Your task to perform on an android device: change the clock display to analog Image 0: 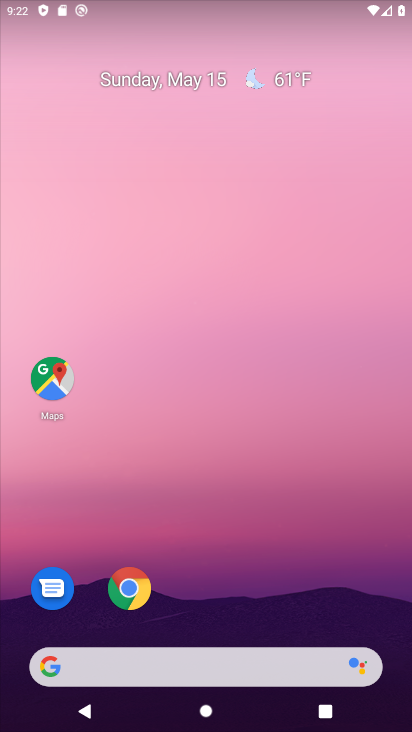
Step 0: drag from (214, 616) to (262, 50)
Your task to perform on an android device: change the clock display to analog Image 1: 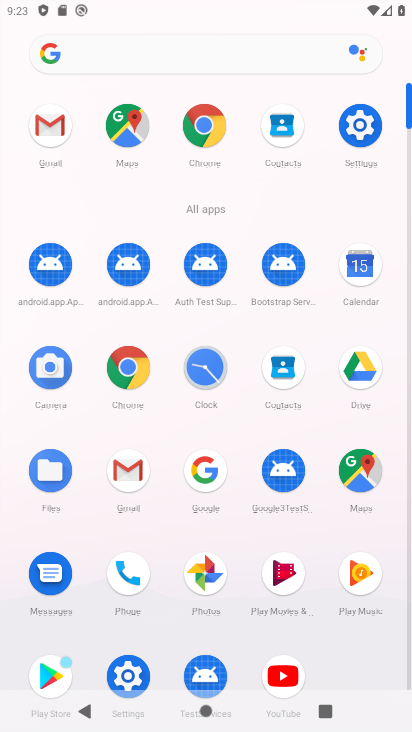
Step 1: click (125, 660)
Your task to perform on an android device: change the clock display to analog Image 2: 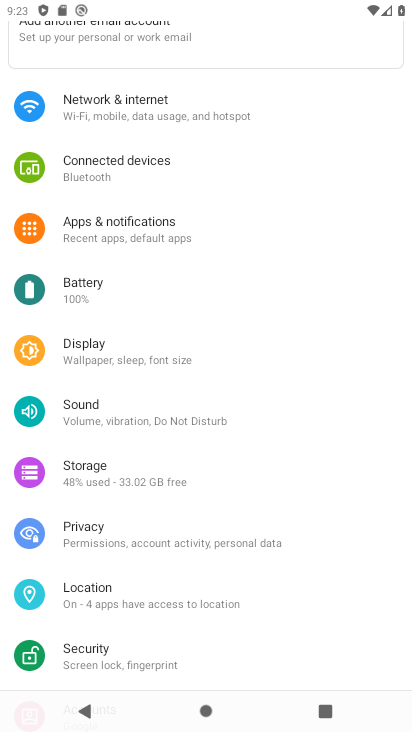
Step 2: drag from (137, 598) to (176, 288)
Your task to perform on an android device: change the clock display to analog Image 3: 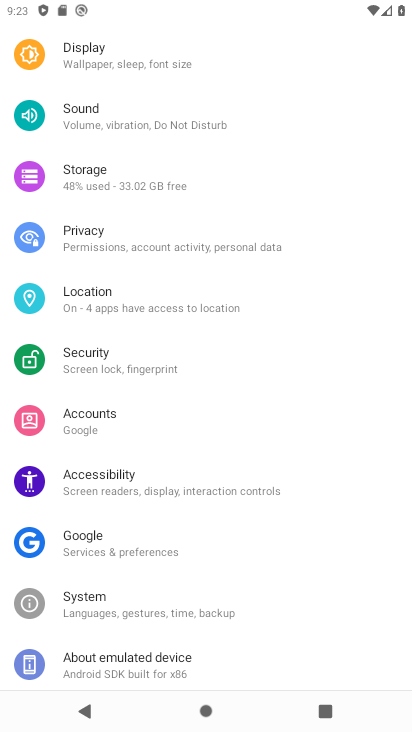
Step 3: click (131, 71)
Your task to perform on an android device: change the clock display to analog Image 4: 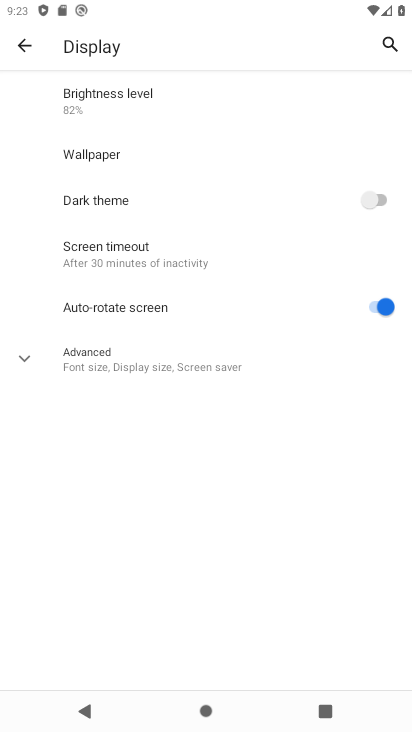
Step 4: click (132, 367)
Your task to perform on an android device: change the clock display to analog Image 5: 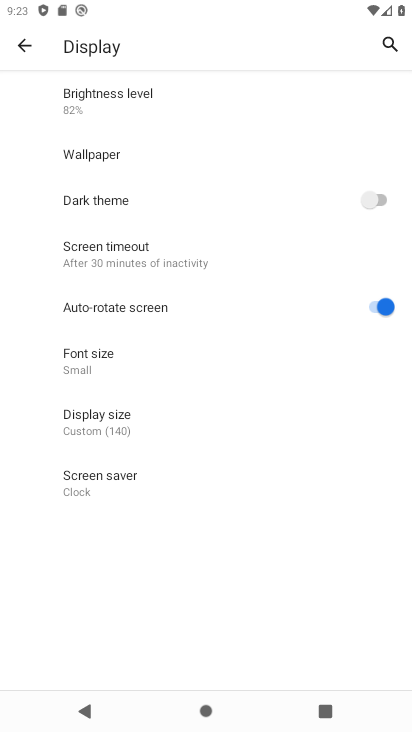
Step 5: click (169, 477)
Your task to perform on an android device: change the clock display to analog Image 6: 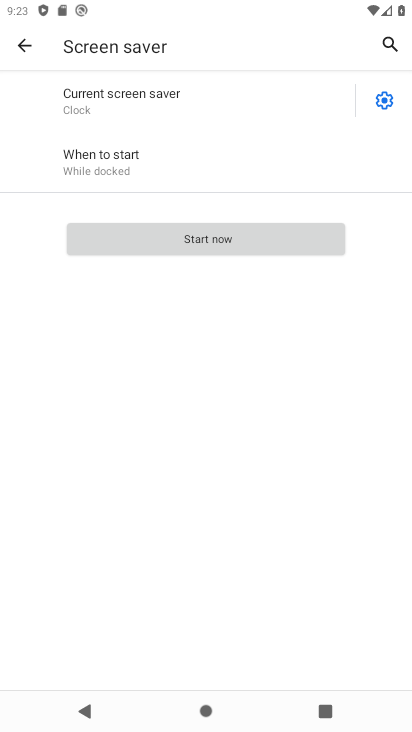
Step 6: click (379, 94)
Your task to perform on an android device: change the clock display to analog Image 7: 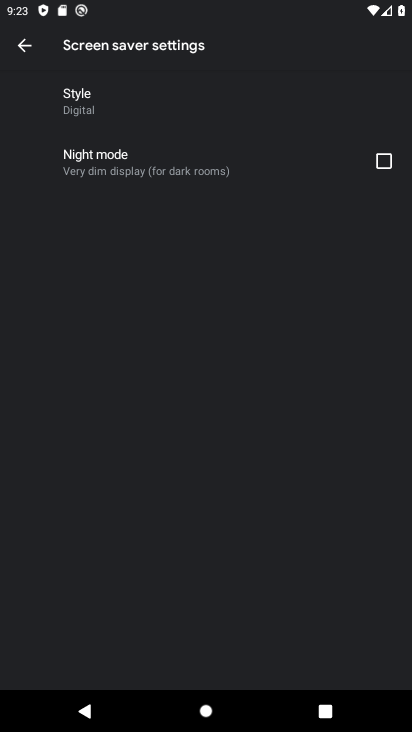
Step 7: click (134, 104)
Your task to perform on an android device: change the clock display to analog Image 8: 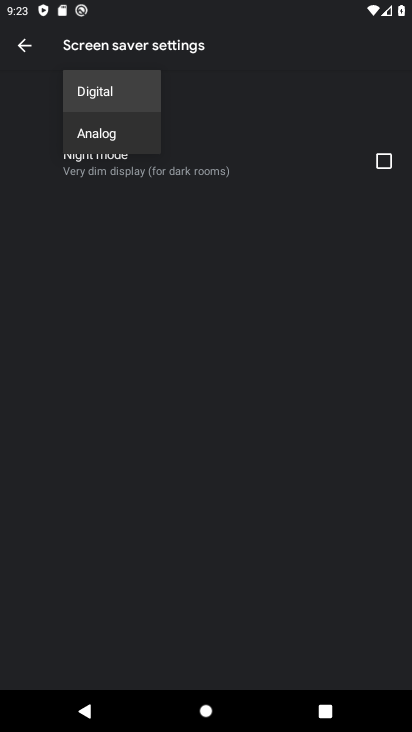
Step 8: click (114, 131)
Your task to perform on an android device: change the clock display to analog Image 9: 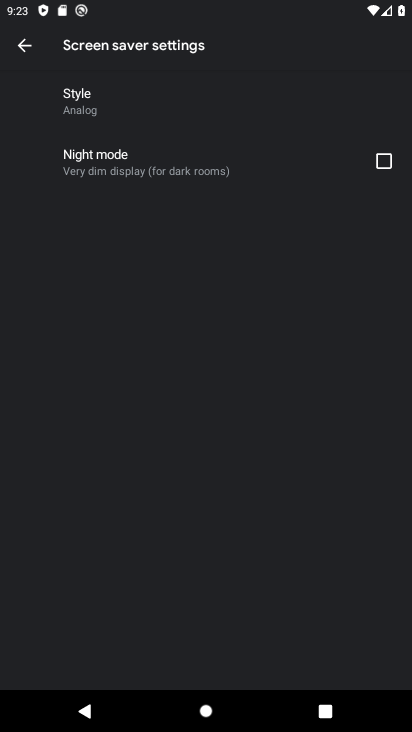
Step 9: task complete